Your task to perform on an android device: turn on airplane mode Image 0: 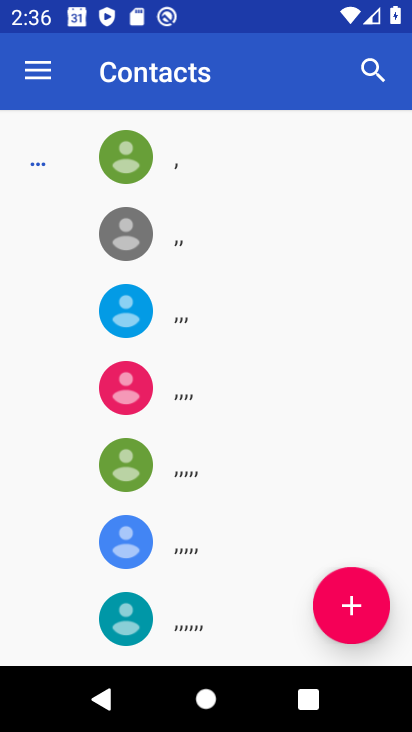
Step 0: press home button
Your task to perform on an android device: turn on airplane mode Image 1: 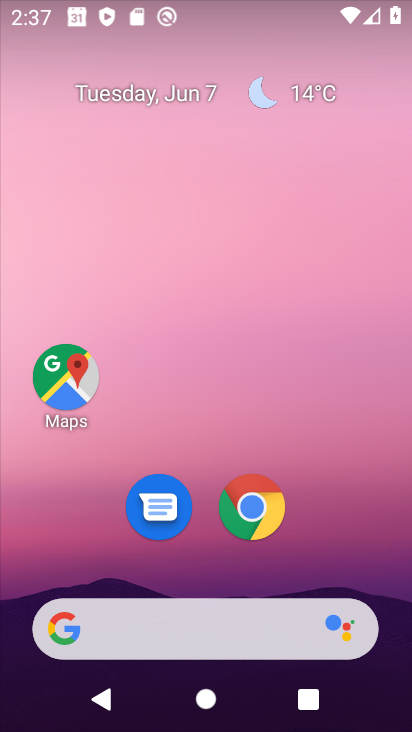
Step 1: drag from (324, 493) to (338, 72)
Your task to perform on an android device: turn on airplane mode Image 2: 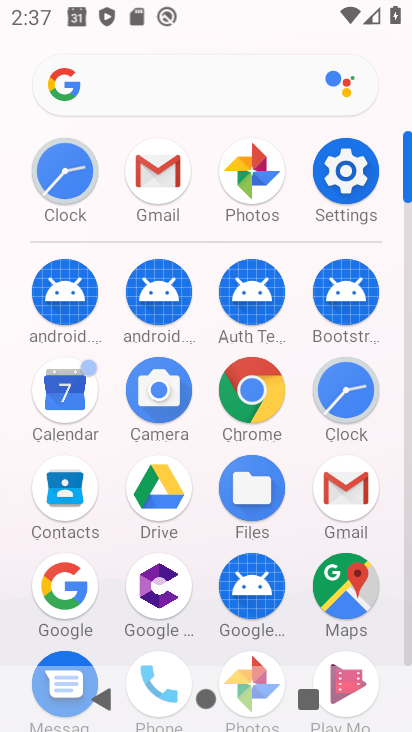
Step 2: click (335, 167)
Your task to perform on an android device: turn on airplane mode Image 3: 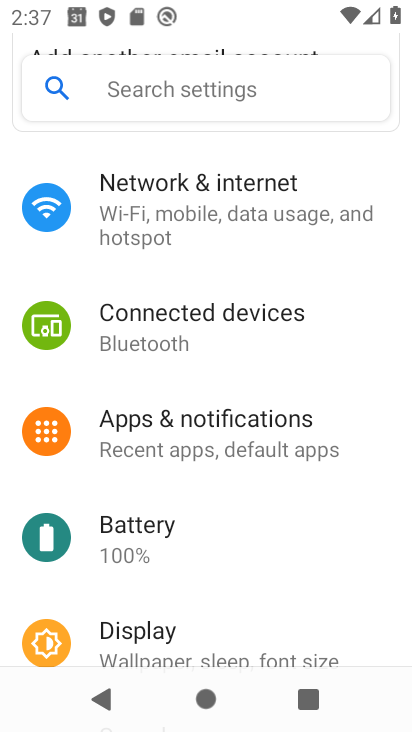
Step 3: click (243, 199)
Your task to perform on an android device: turn on airplane mode Image 4: 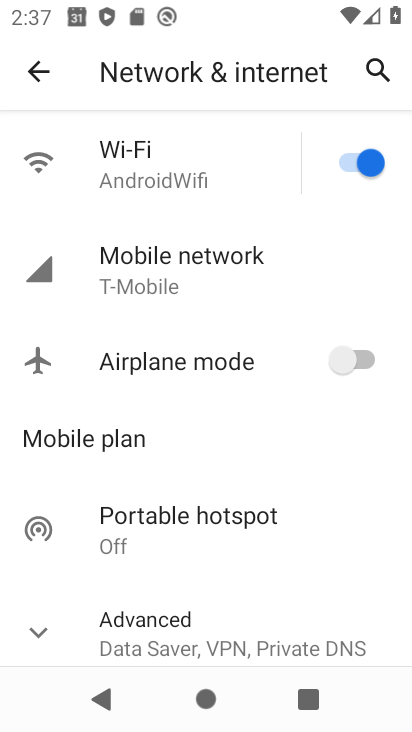
Step 4: click (361, 364)
Your task to perform on an android device: turn on airplane mode Image 5: 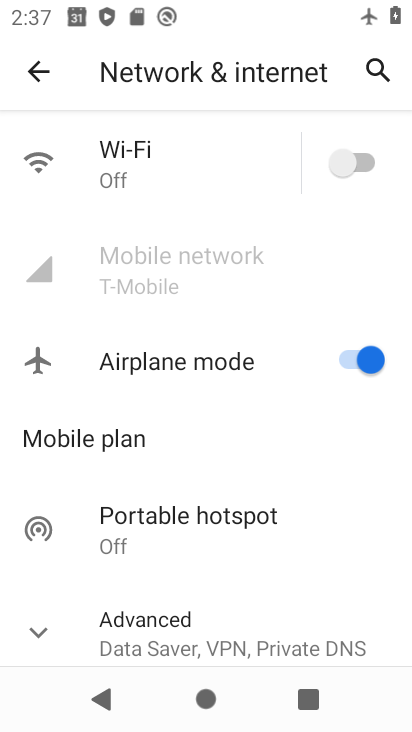
Step 5: task complete